Your task to perform on an android device: delete location history Image 0: 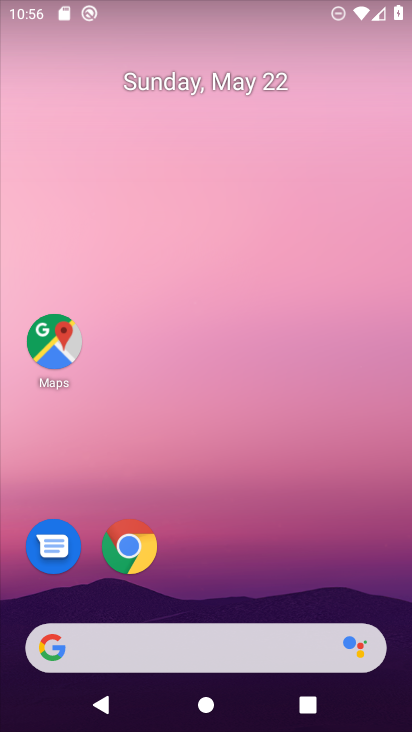
Step 0: click (327, 228)
Your task to perform on an android device: delete location history Image 1: 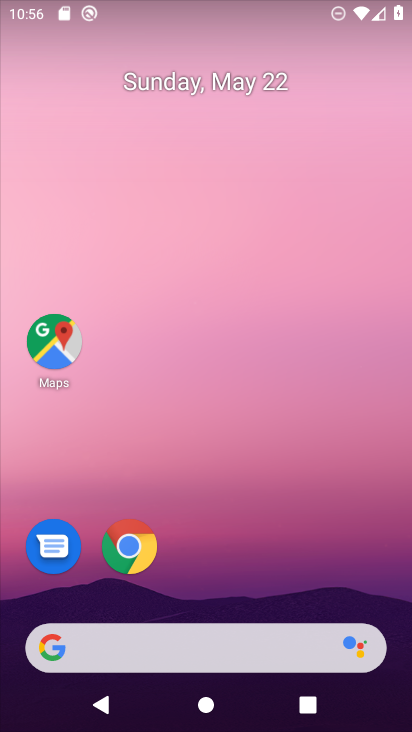
Step 1: drag from (222, 549) to (246, 3)
Your task to perform on an android device: delete location history Image 2: 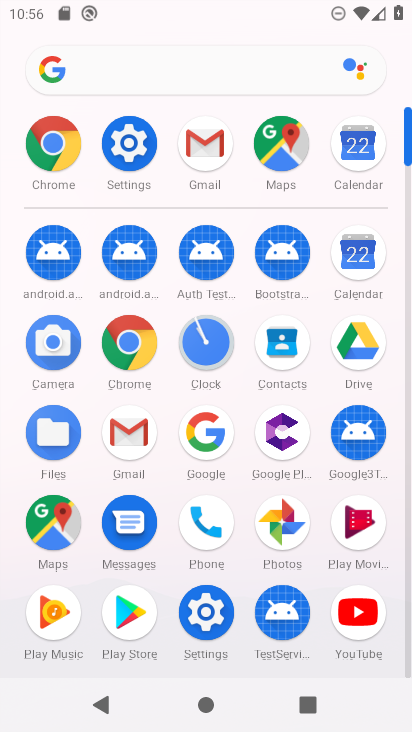
Step 2: click (42, 526)
Your task to perform on an android device: delete location history Image 3: 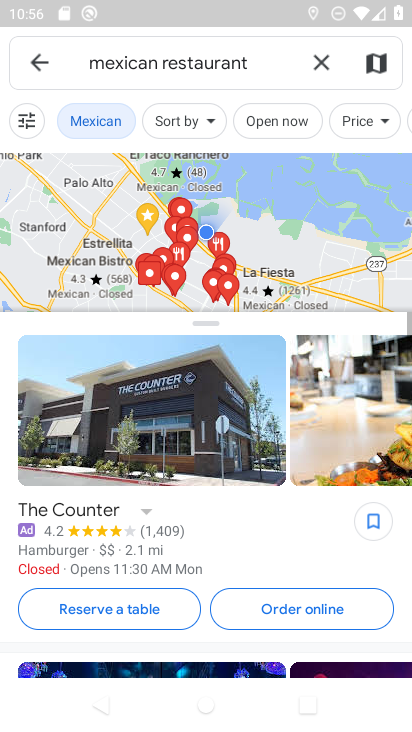
Step 3: click (35, 56)
Your task to perform on an android device: delete location history Image 4: 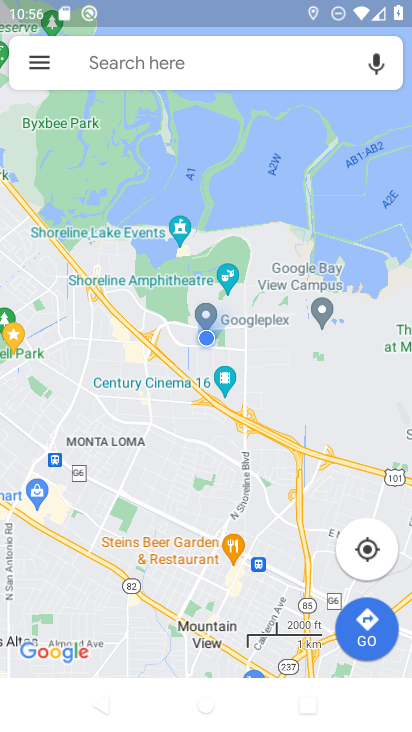
Step 4: click (35, 56)
Your task to perform on an android device: delete location history Image 5: 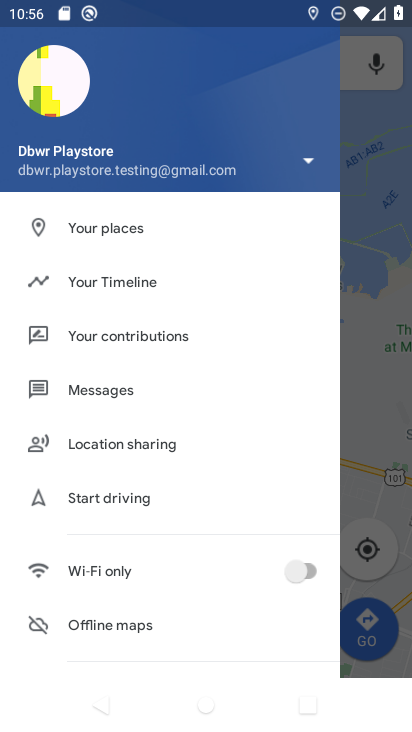
Step 5: click (135, 284)
Your task to perform on an android device: delete location history Image 6: 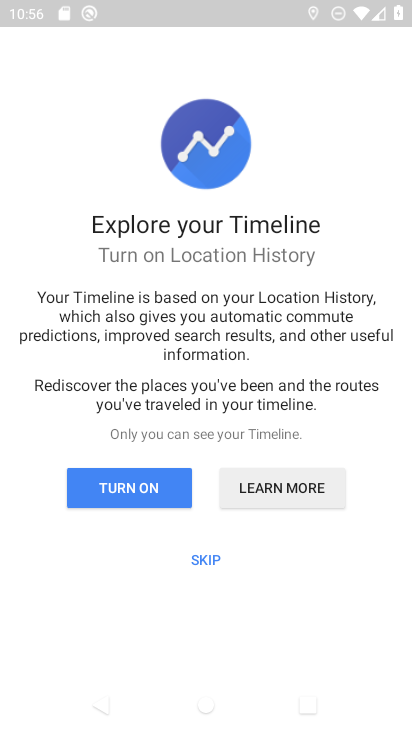
Step 6: click (209, 558)
Your task to perform on an android device: delete location history Image 7: 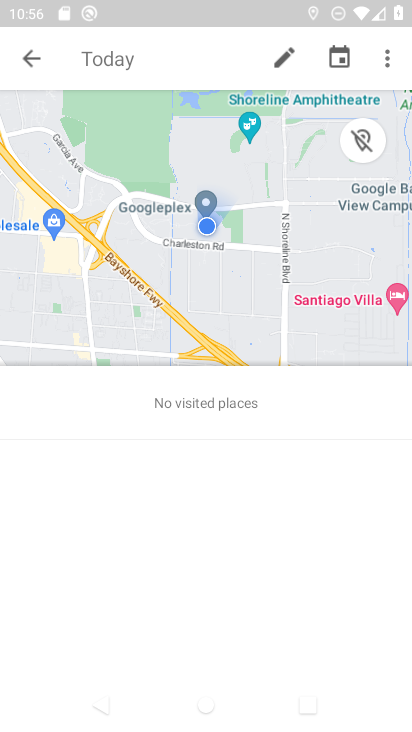
Step 7: click (26, 53)
Your task to perform on an android device: delete location history Image 8: 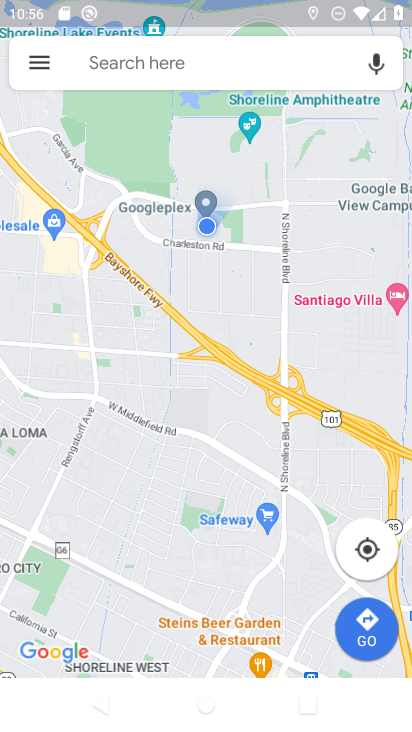
Step 8: click (21, 50)
Your task to perform on an android device: delete location history Image 9: 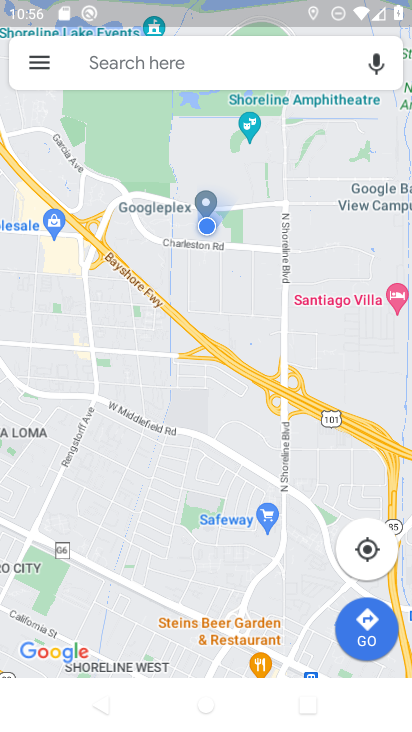
Step 9: click (37, 59)
Your task to perform on an android device: delete location history Image 10: 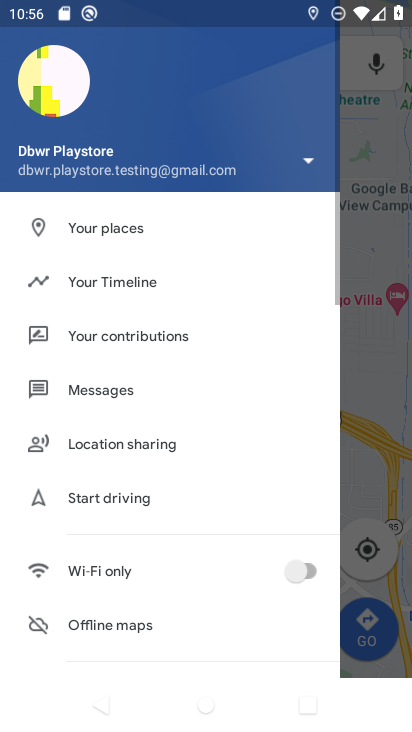
Step 10: click (138, 298)
Your task to perform on an android device: delete location history Image 11: 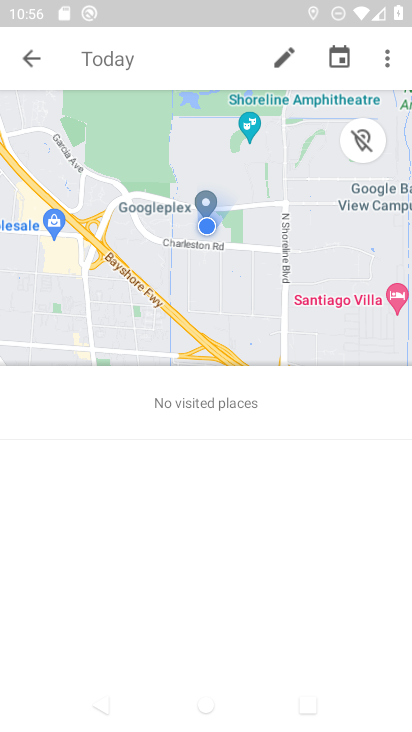
Step 11: click (387, 58)
Your task to perform on an android device: delete location history Image 12: 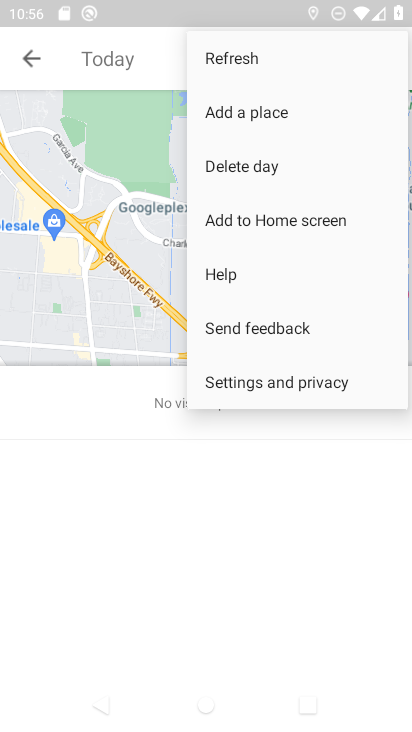
Step 12: click (243, 375)
Your task to perform on an android device: delete location history Image 13: 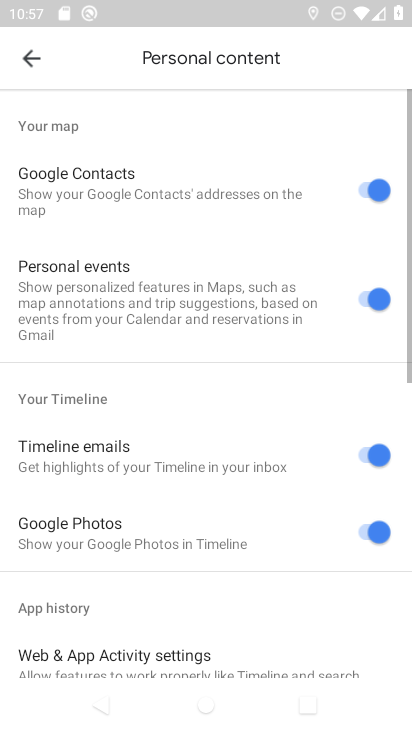
Step 13: drag from (157, 544) to (192, 245)
Your task to perform on an android device: delete location history Image 14: 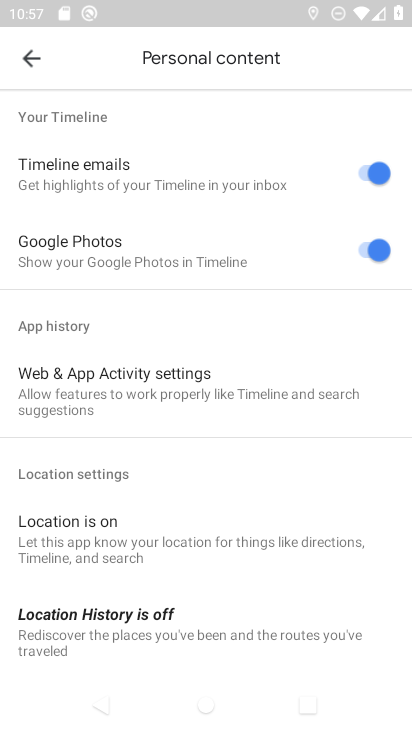
Step 14: drag from (192, 603) to (253, 202)
Your task to perform on an android device: delete location history Image 15: 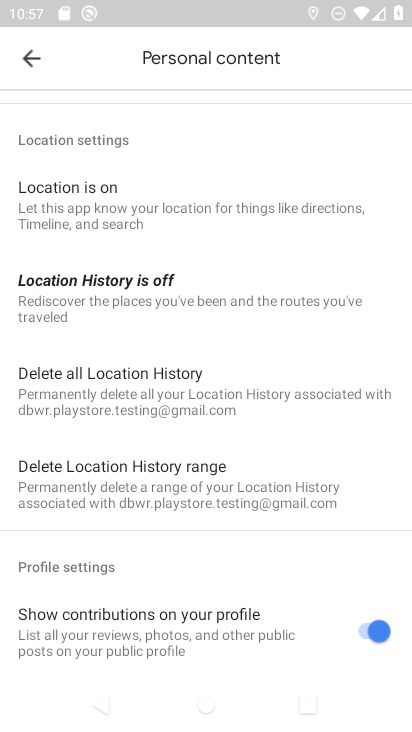
Step 15: click (193, 486)
Your task to perform on an android device: delete location history Image 16: 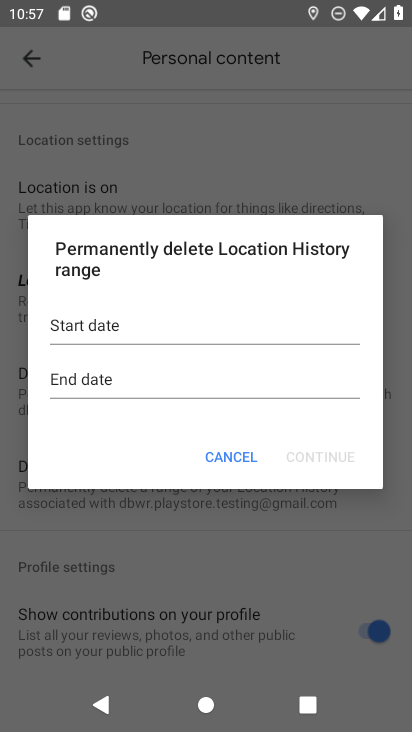
Step 16: click (213, 452)
Your task to perform on an android device: delete location history Image 17: 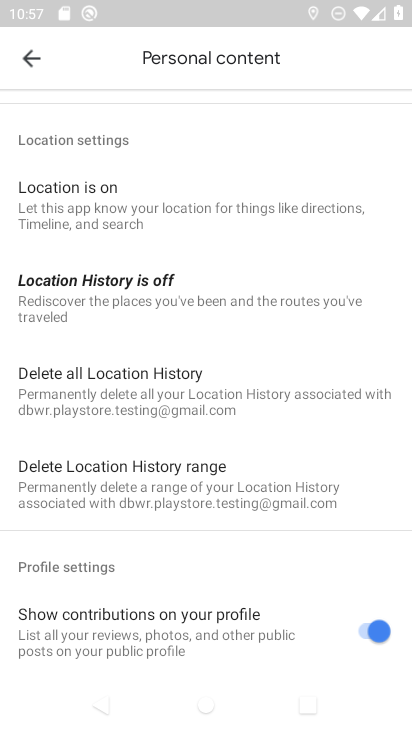
Step 17: click (159, 380)
Your task to perform on an android device: delete location history Image 18: 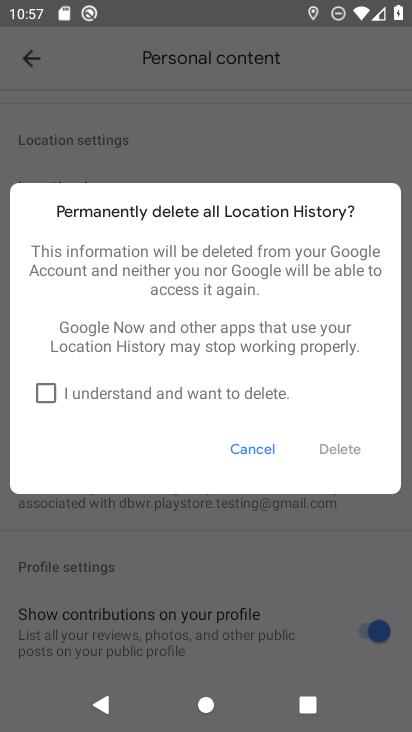
Step 18: click (145, 398)
Your task to perform on an android device: delete location history Image 19: 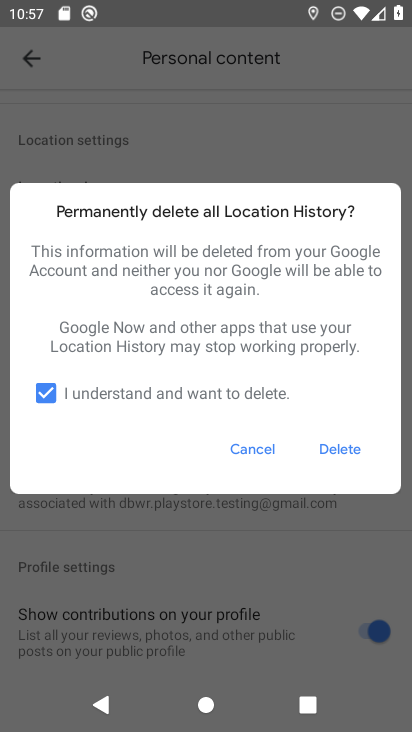
Step 19: click (343, 450)
Your task to perform on an android device: delete location history Image 20: 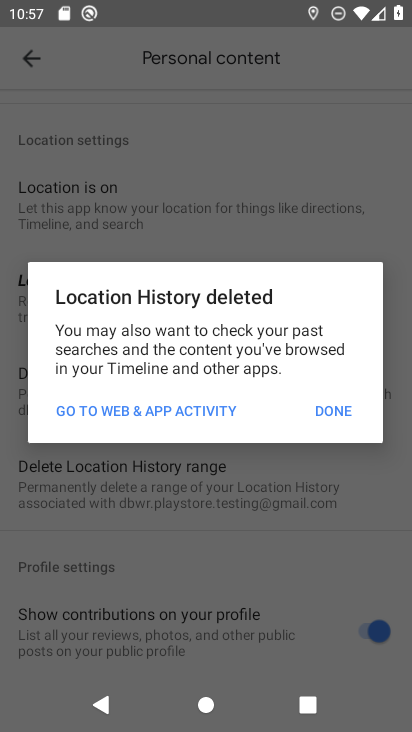
Step 20: click (341, 404)
Your task to perform on an android device: delete location history Image 21: 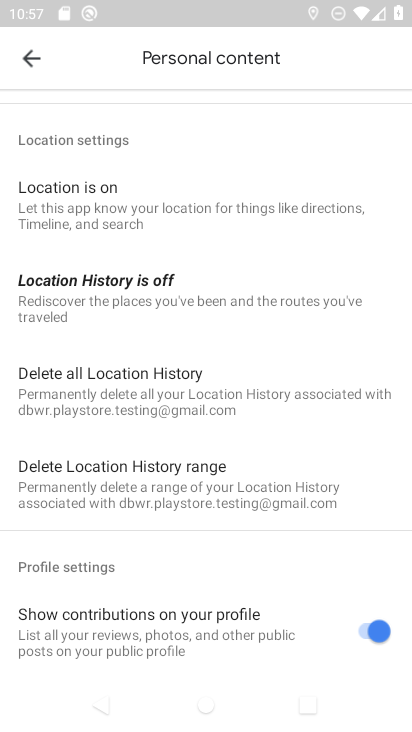
Step 21: task complete